Your task to perform on an android device: turn pop-ups off in chrome Image 0: 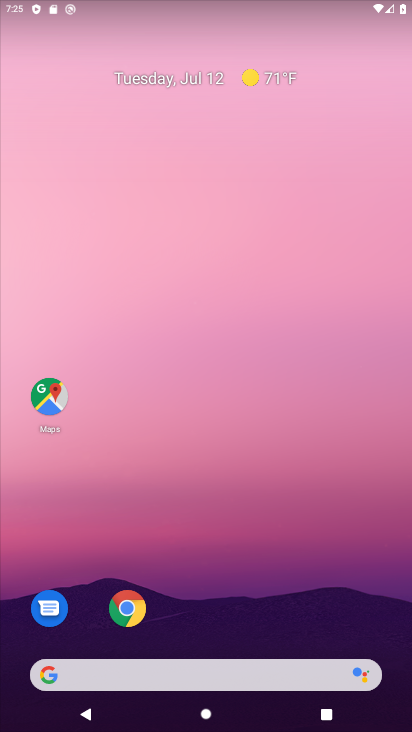
Step 0: click (131, 611)
Your task to perform on an android device: turn pop-ups off in chrome Image 1: 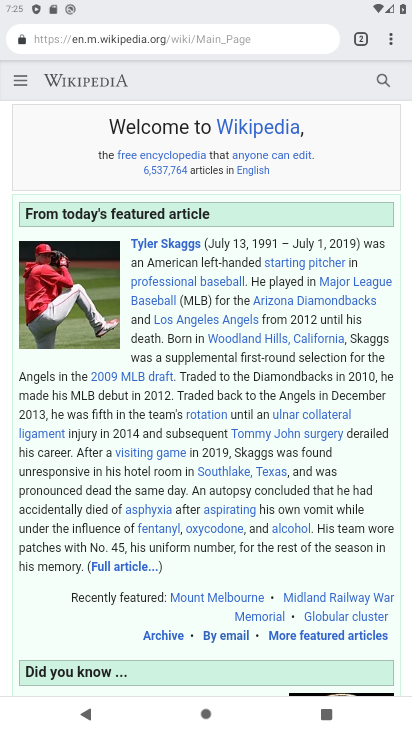
Step 1: click (388, 39)
Your task to perform on an android device: turn pop-ups off in chrome Image 2: 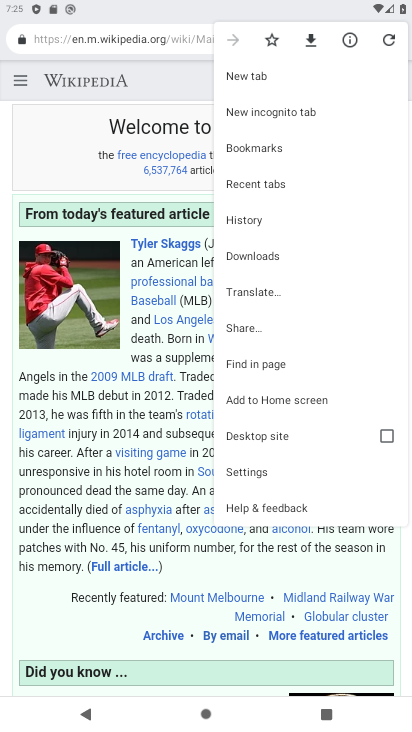
Step 2: click (243, 471)
Your task to perform on an android device: turn pop-ups off in chrome Image 3: 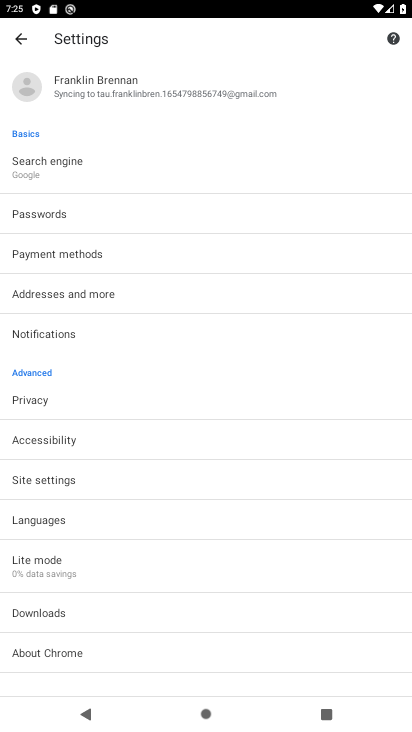
Step 3: click (46, 483)
Your task to perform on an android device: turn pop-ups off in chrome Image 4: 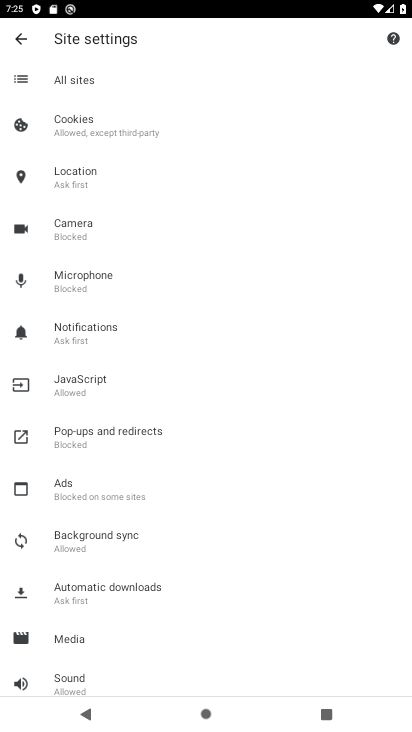
Step 4: click (72, 424)
Your task to perform on an android device: turn pop-ups off in chrome Image 5: 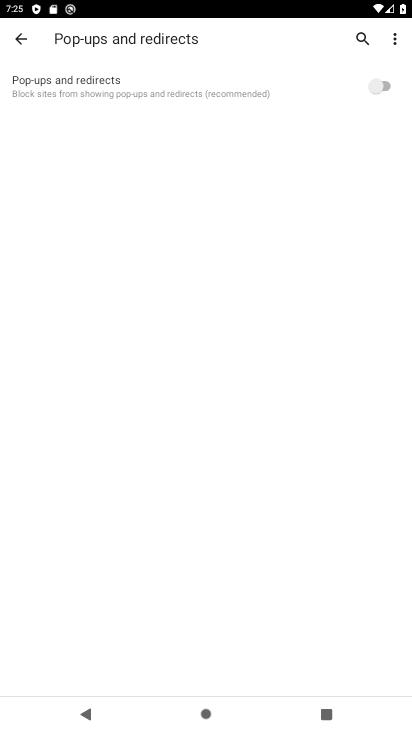
Step 5: task complete